Your task to perform on an android device: Go to Android settings Image 0: 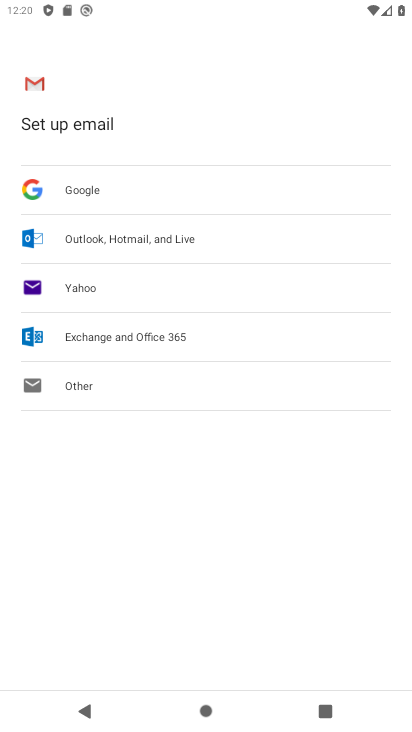
Step 0: press home button
Your task to perform on an android device: Go to Android settings Image 1: 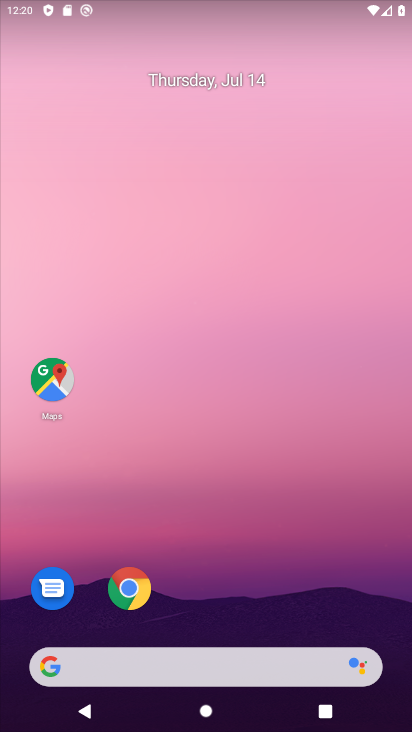
Step 1: drag from (233, 656) to (295, 310)
Your task to perform on an android device: Go to Android settings Image 2: 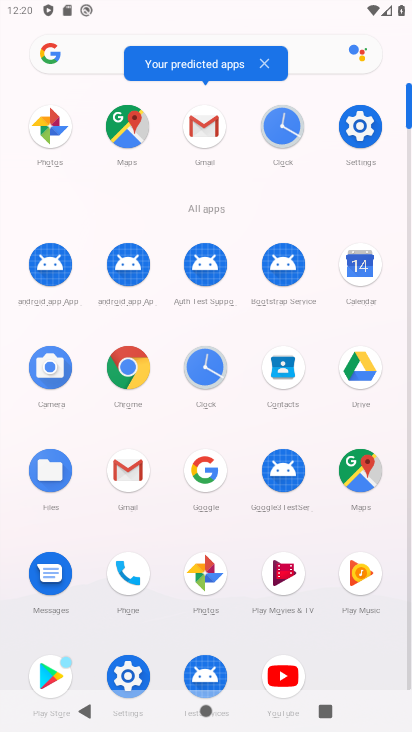
Step 2: click (351, 118)
Your task to perform on an android device: Go to Android settings Image 3: 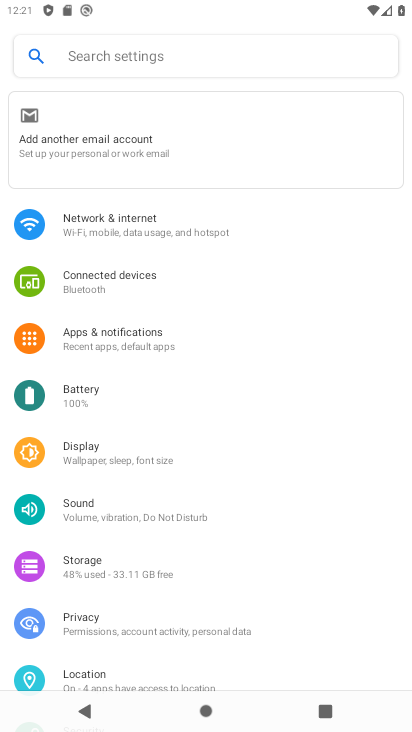
Step 3: task complete